Your task to perform on an android device: turn off javascript in the chrome app Image 0: 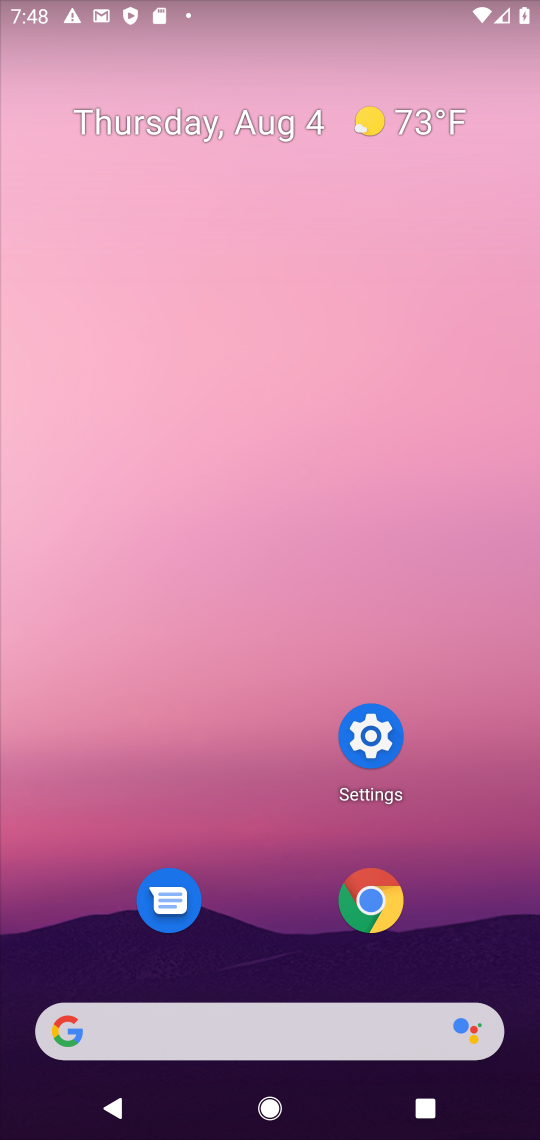
Step 0: click (375, 910)
Your task to perform on an android device: turn off javascript in the chrome app Image 1: 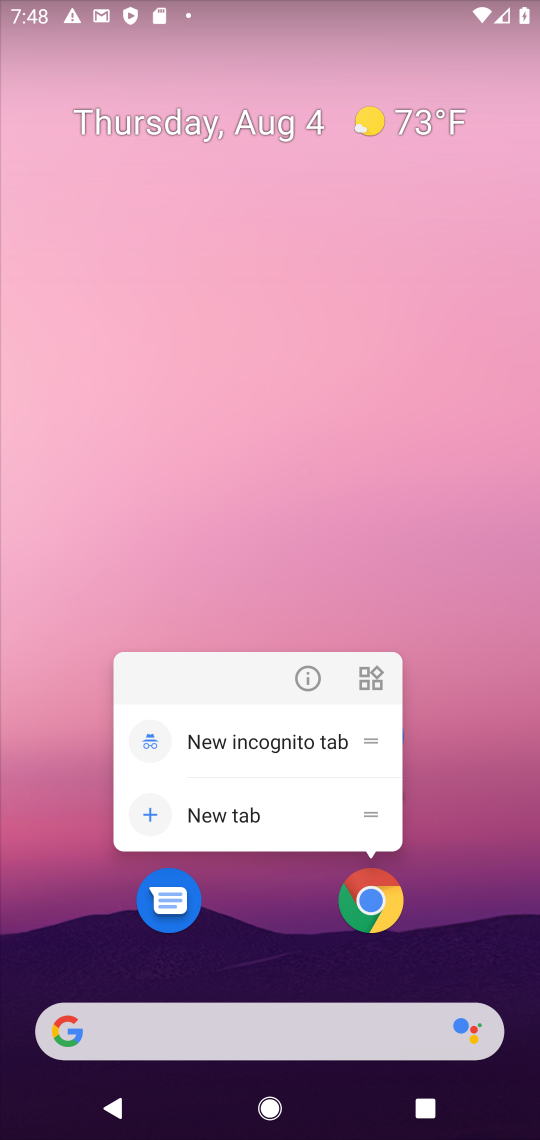
Step 1: click (376, 903)
Your task to perform on an android device: turn off javascript in the chrome app Image 2: 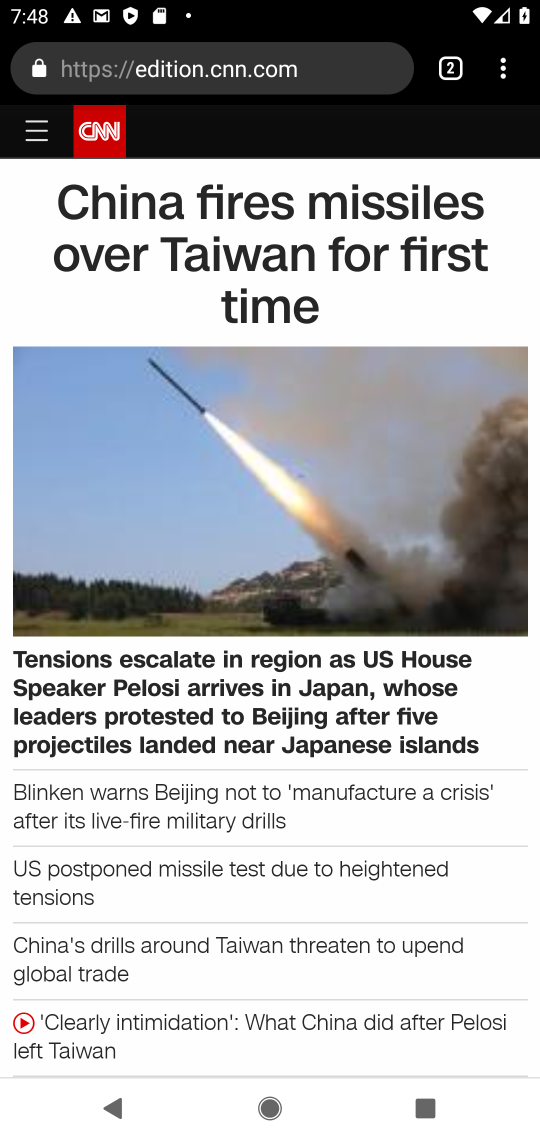
Step 2: drag from (501, 61) to (320, 848)
Your task to perform on an android device: turn off javascript in the chrome app Image 3: 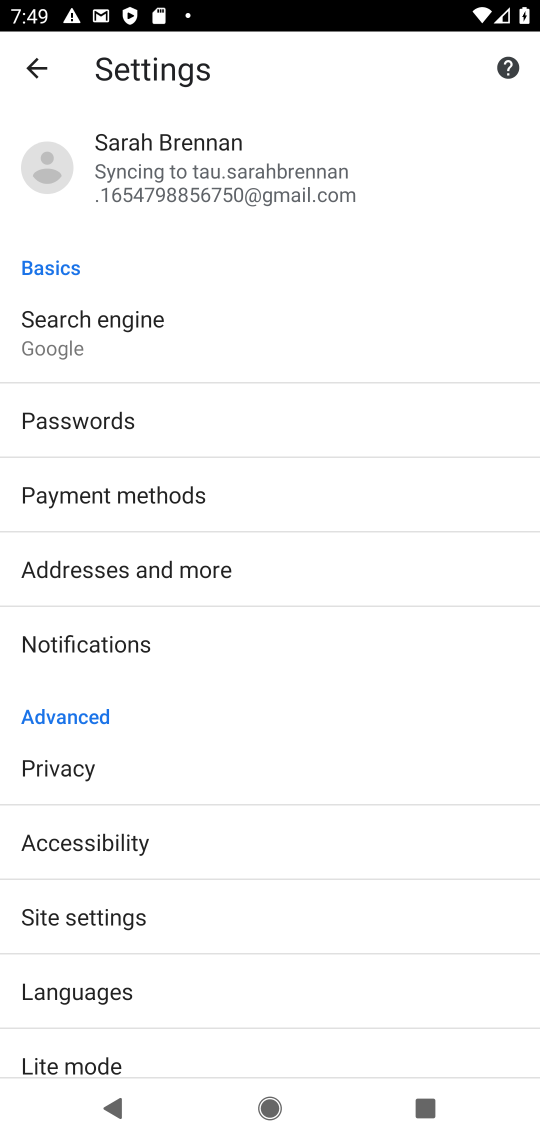
Step 3: click (101, 916)
Your task to perform on an android device: turn off javascript in the chrome app Image 4: 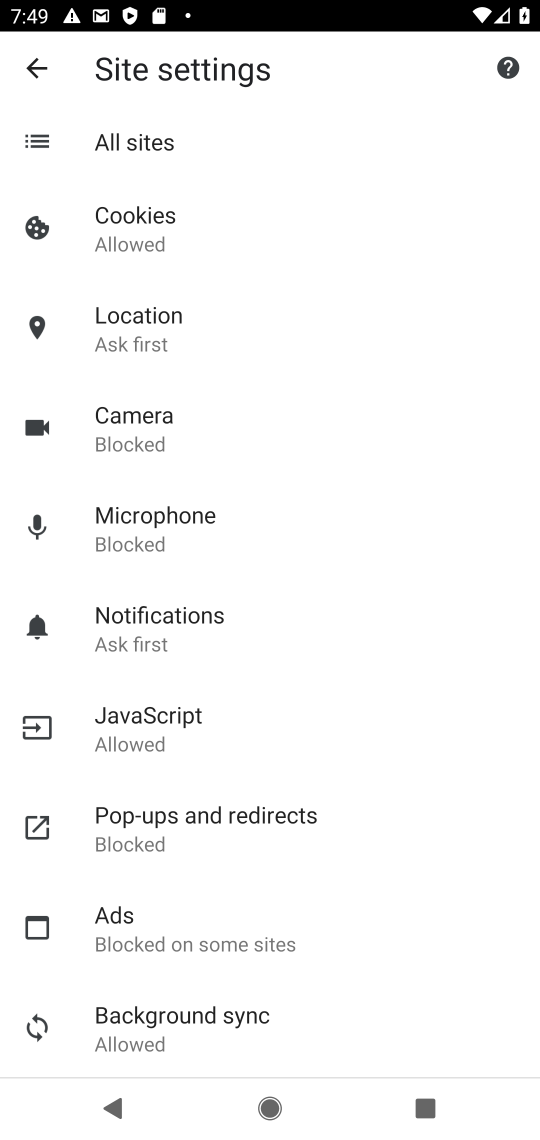
Step 4: click (171, 717)
Your task to perform on an android device: turn off javascript in the chrome app Image 5: 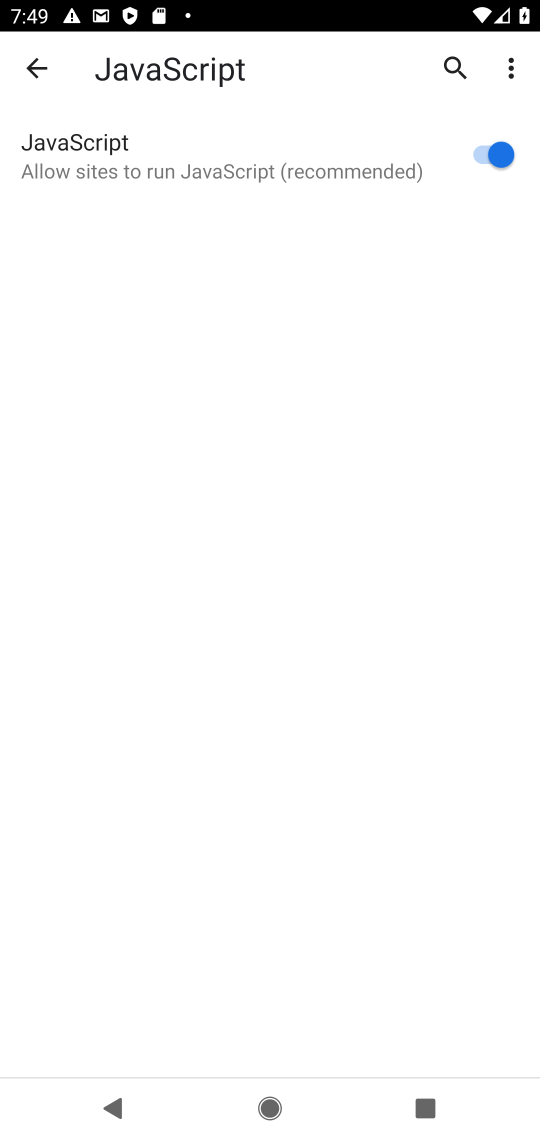
Step 5: click (491, 147)
Your task to perform on an android device: turn off javascript in the chrome app Image 6: 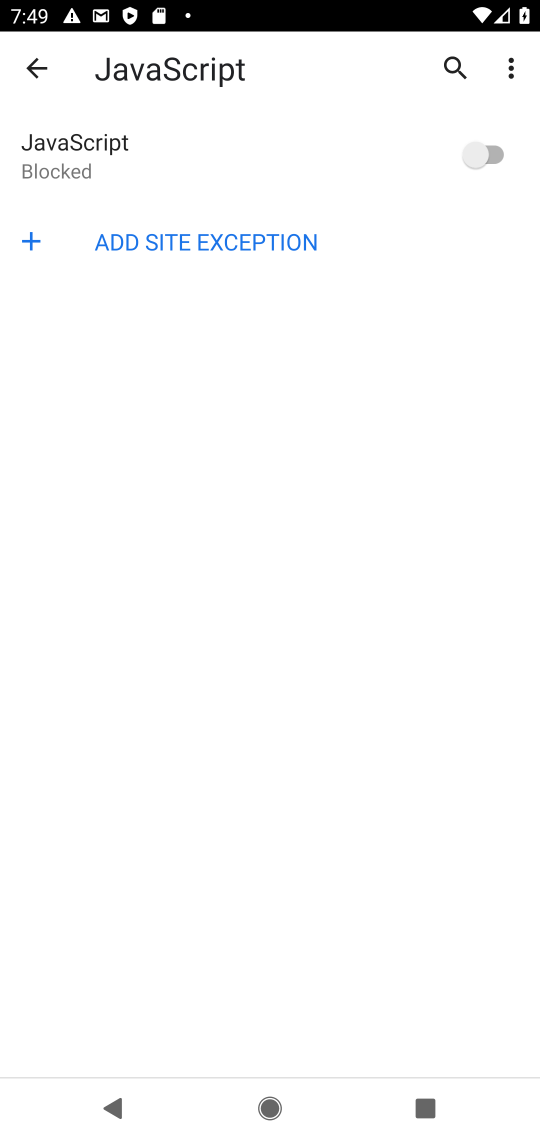
Step 6: task complete